Your task to perform on an android device: allow cookies in the chrome app Image 0: 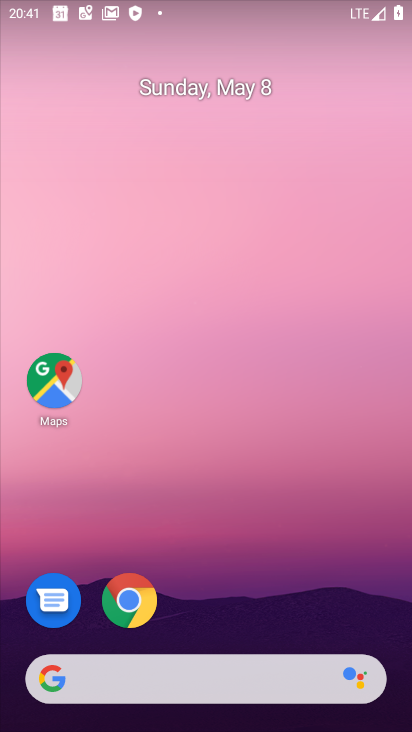
Step 0: press home button
Your task to perform on an android device: allow cookies in the chrome app Image 1: 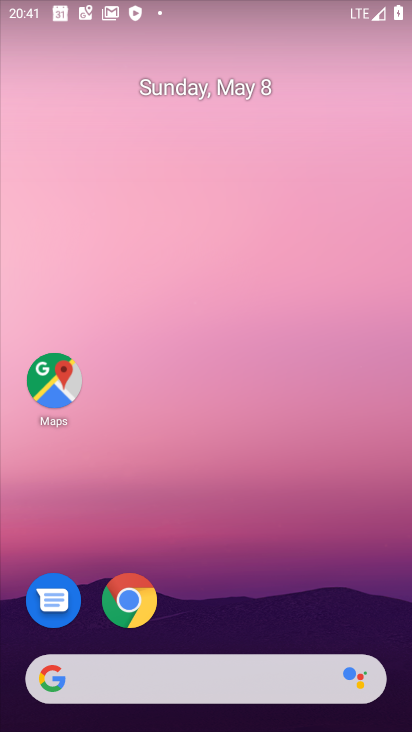
Step 1: drag from (248, 721) to (399, 196)
Your task to perform on an android device: allow cookies in the chrome app Image 2: 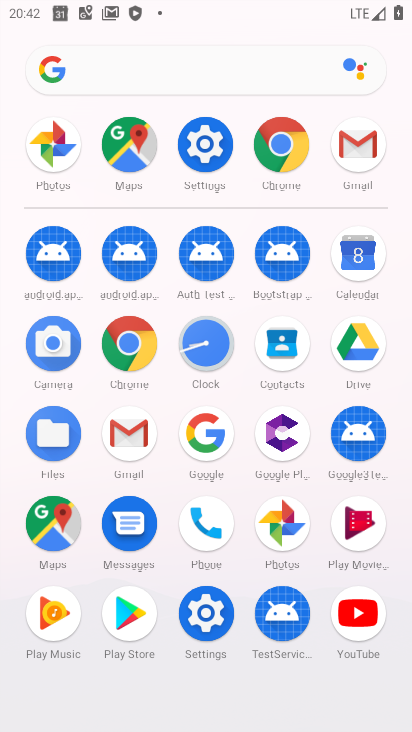
Step 2: click (288, 146)
Your task to perform on an android device: allow cookies in the chrome app Image 3: 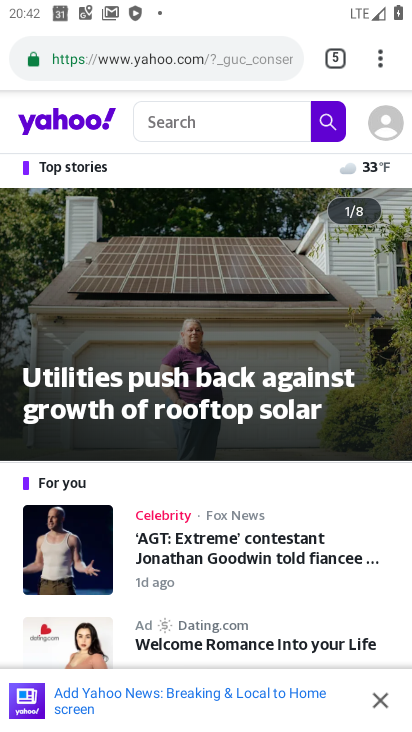
Step 3: click (386, 77)
Your task to perform on an android device: allow cookies in the chrome app Image 4: 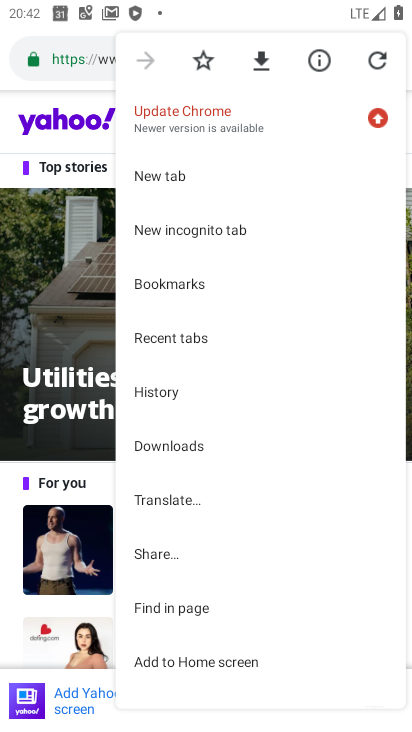
Step 4: drag from (281, 530) to (295, 348)
Your task to perform on an android device: allow cookies in the chrome app Image 5: 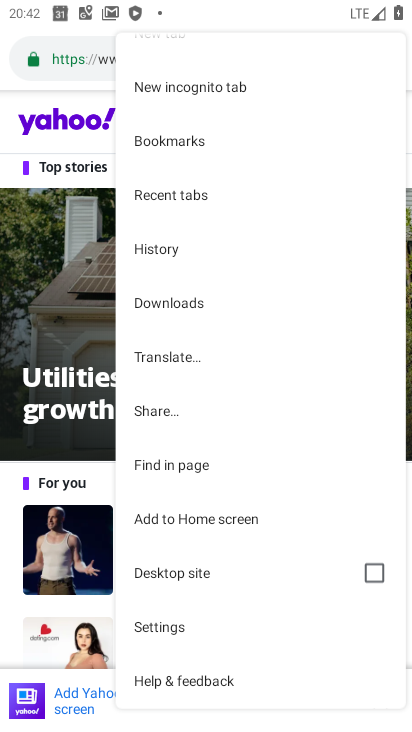
Step 5: click (174, 629)
Your task to perform on an android device: allow cookies in the chrome app Image 6: 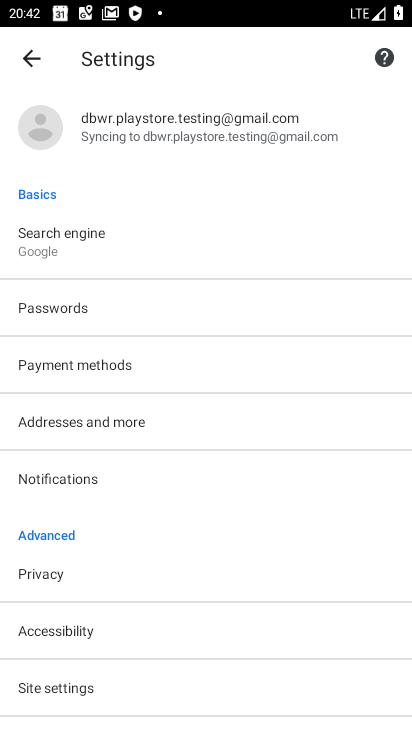
Step 6: click (54, 683)
Your task to perform on an android device: allow cookies in the chrome app Image 7: 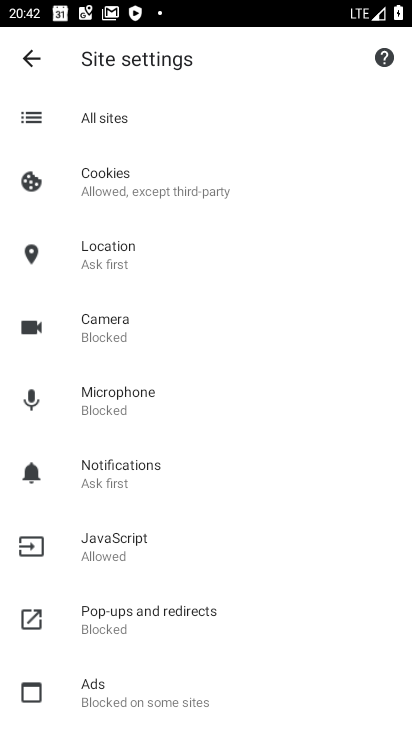
Step 7: click (154, 188)
Your task to perform on an android device: allow cookies in the chrome app Image 8: 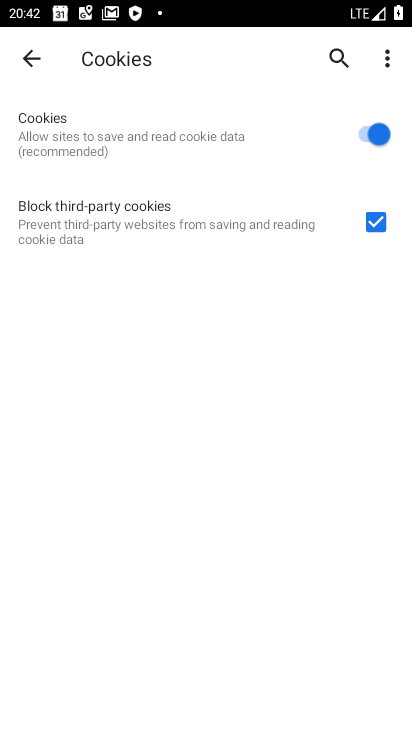
Step 8: click (199, 144)
Your task to perform on an android device: allow cookies in the chrome app Image 9: 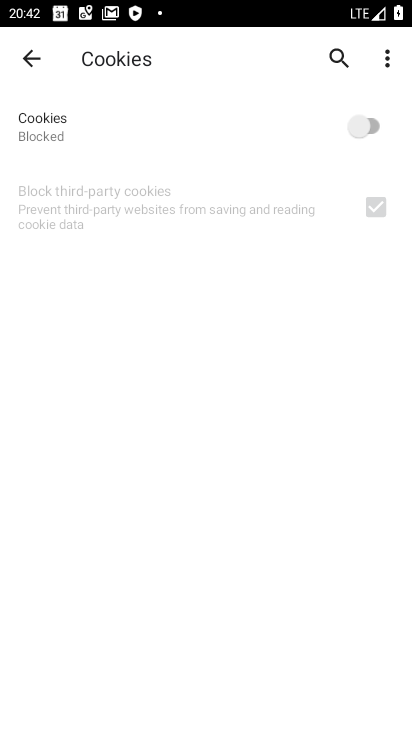
Step 9: click (199, 144)
Your task to perform on an android device: allow cookies in the chrome app Image 10: 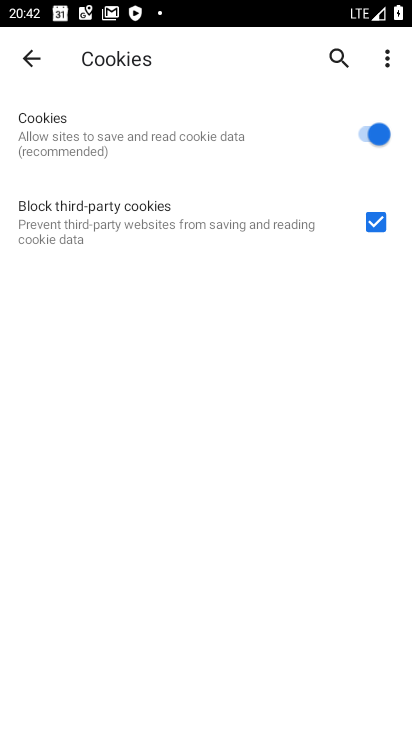
Step 10: task complete